Your task to perform on an android device: open app "Facebook" (install if not already installed) and go to login screen Image 0: 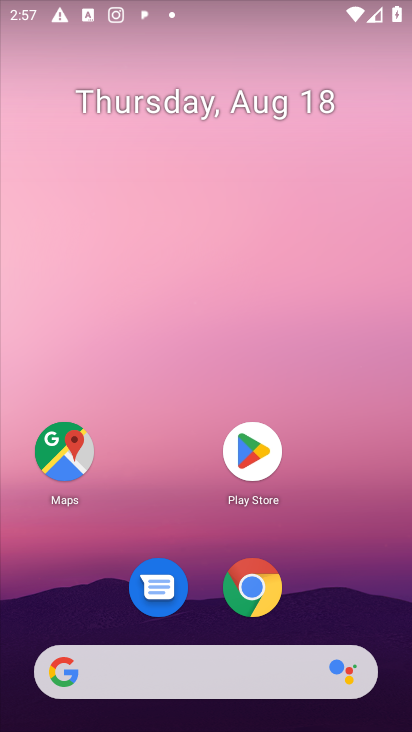
Step 0: click (245, 452)
Your task to perform on an android device: open app "Facebook" (install if not already installed) and go to login screen Image 1: 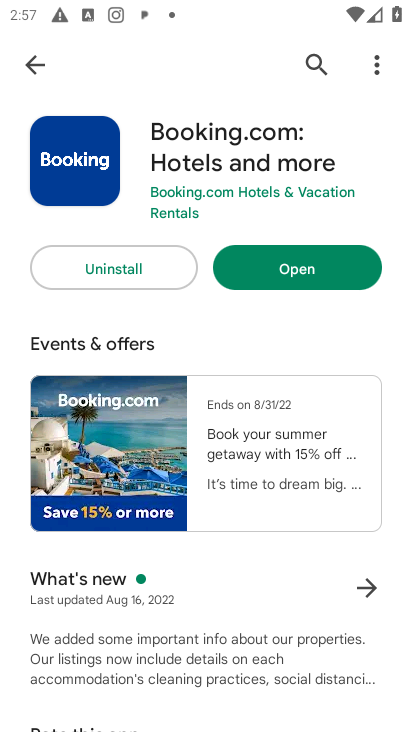
Step 1: click (310, 65)
Your task to perform on an android device: open app "Facebook" (install if not already installed) and go to login screen Image 2: 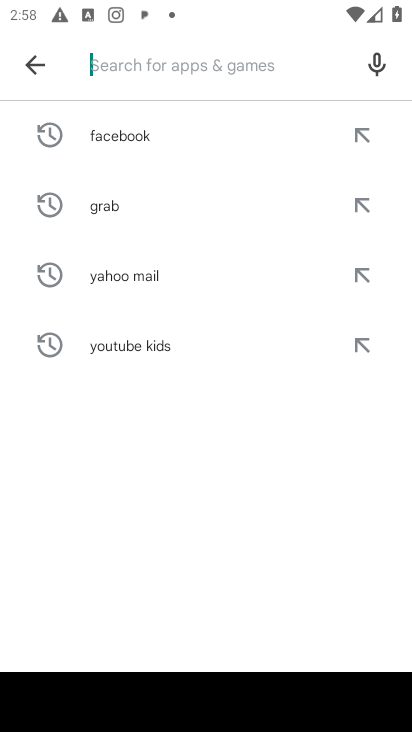
Step 2: type "Facebook"
Your task to perform on an android device: open app "Facebook" (install if not already installed) and go to login screen Image 3: 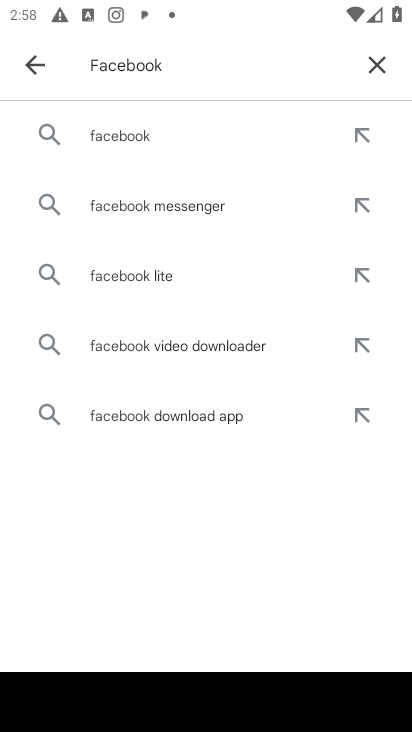
Step 3: click (112, 138)
Your task to perform on an android device: open app "Facebook" (install if not already installed) and go to login screen Image 4: 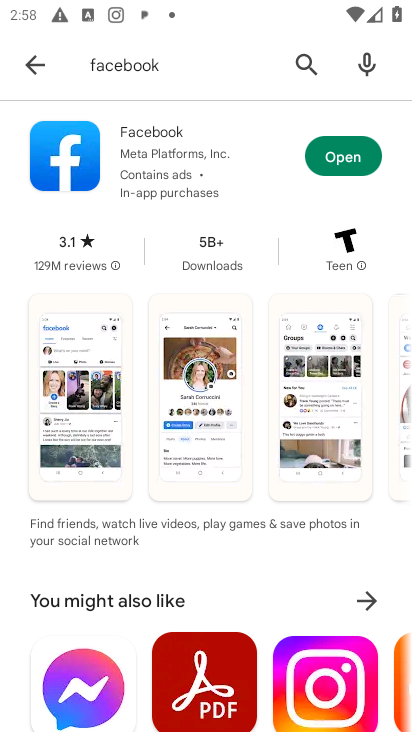
Step 4: click (352, 156)
Your task to perform on an android device: open app "Facebook" (install if not already installed) and go to login screen Image 5: 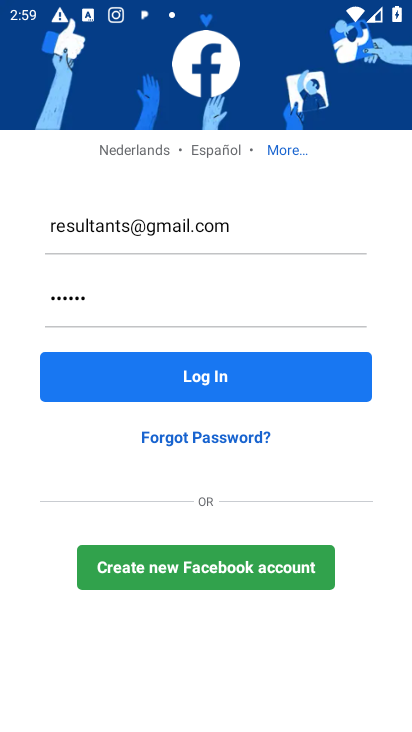
Step 5: task complete